Your task to perform on an android device: Open notification settings Image 0: 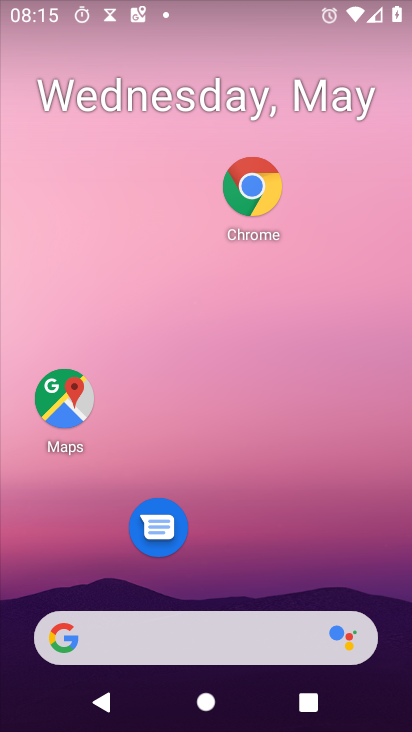
Step 0: drag from (249, 546) to (323, 152)
Your task to perform on an android device: Open notification settings Image 1: 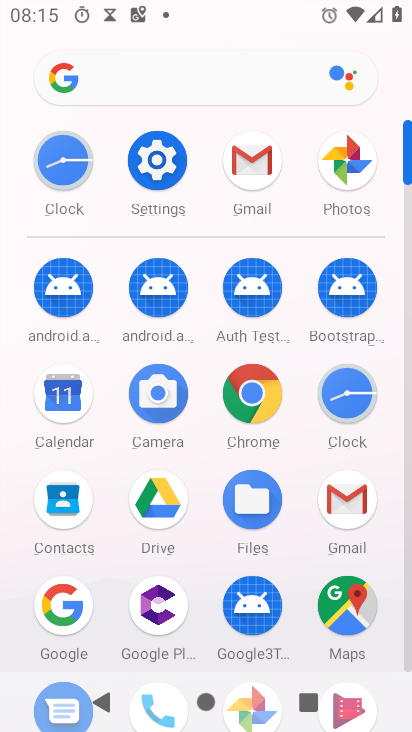
Step 1: click (163, 161)
Your task to perform on an android device: Open notification settings Image 2: 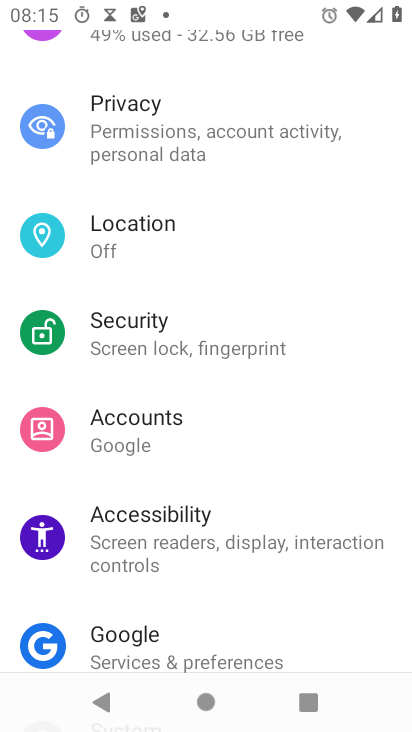
Step 2: drag from (283, 83) to (266, 578)
Your task to perform on an android device: Open notification settings Image 3: 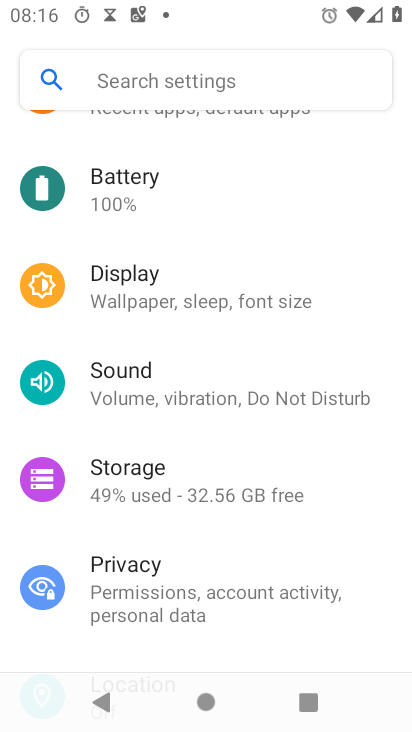
Step 3: drag from (300, 165) to (287, 640)
Your task to perform on an android device: Open notification settings Image 4: 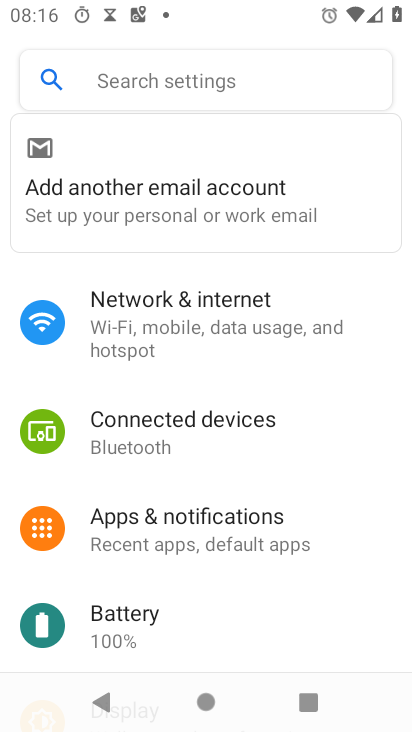
Step 4: click (184, 520)
Your task to perform on an android device: Open notification settings Image 5: 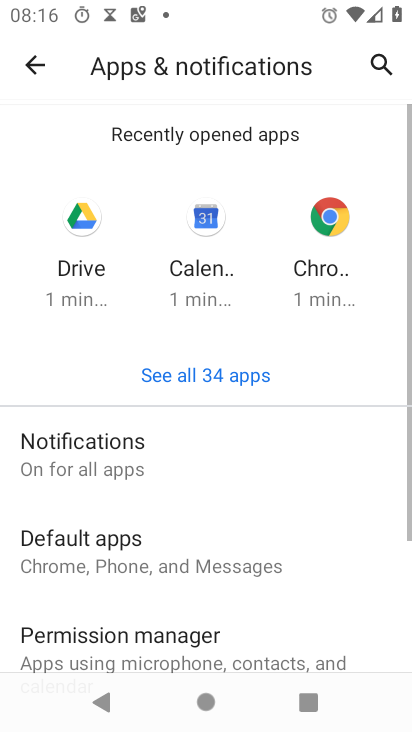
Step 5: click (77, 451)
Your task to perform on an android device: Open notification settings Image 6: 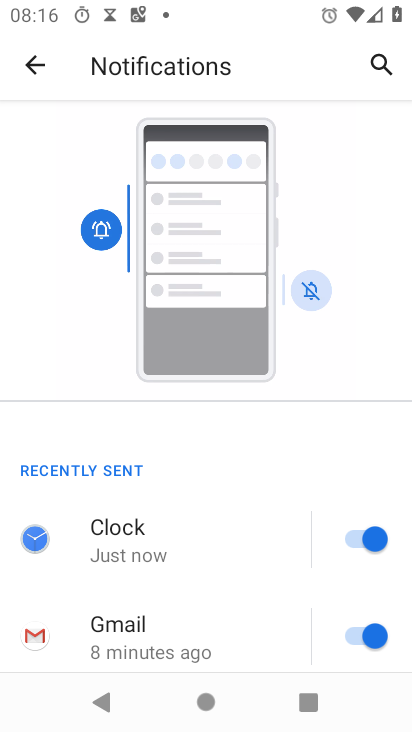
Step 6: task complete